Your task to perform on an android device: delete the emails in spam in the gmail app Image 0: 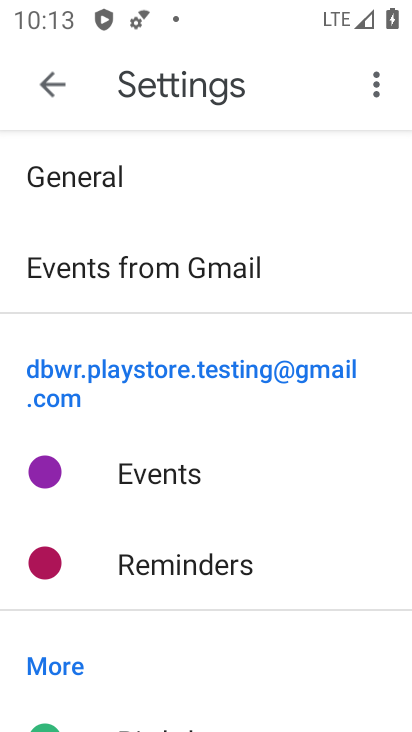
Step 0: press home button
Your task to perform on an android device: delete the emails in spam in the gmail app Image 1: 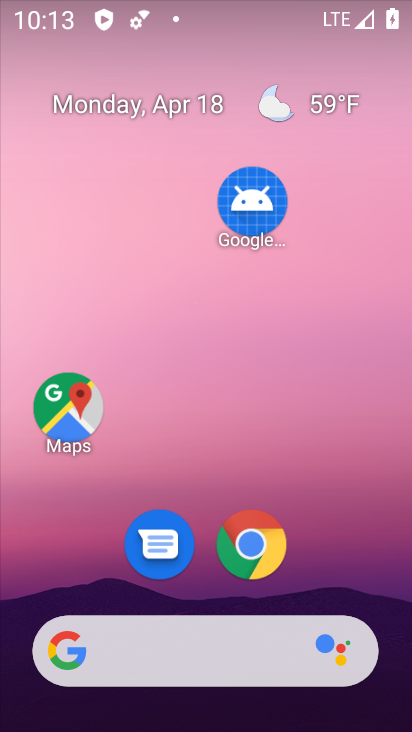
Step 1: drag from (309, 509) to (334, 285)
Your task to perform on an android device: delete the emails in spam in the gmail app Image 2: 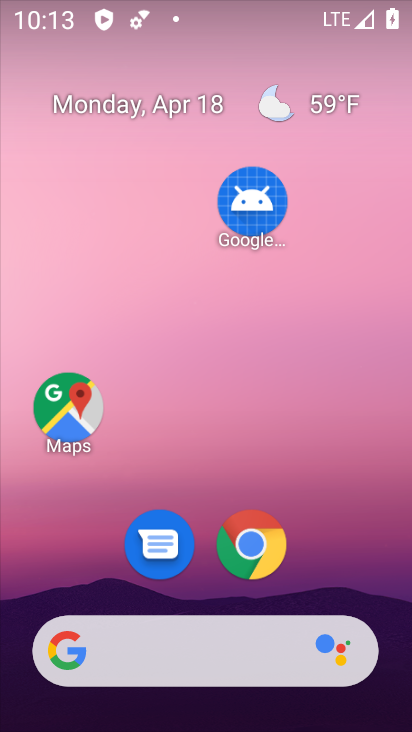
Step 2: drag from (333, 555) to (333, 68)
Your task to perform on an android device: delete the emails in spam in the gmail app Image 3: 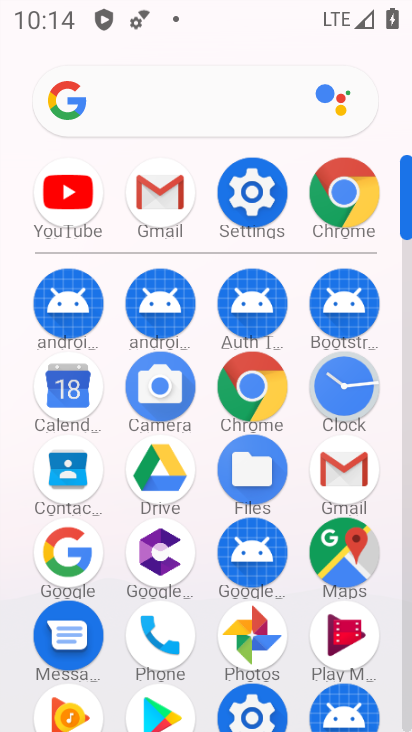
Step 3: click (353, 458)
Your task to perform on an android device: delete the emails in spam in the gmail app Image 4: 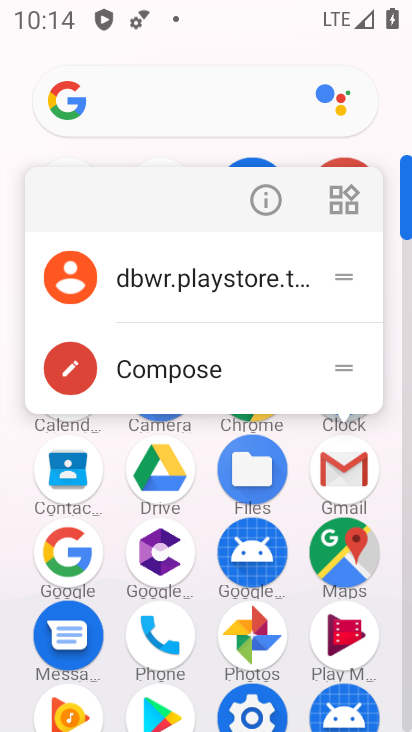
Step 4: click (352, 461)
Your task to perform on an android device: delete the emails in spam in the gmail app Image 5: 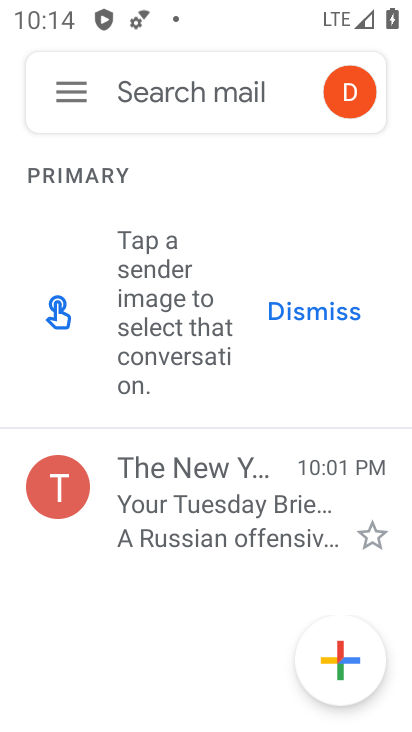
Step 5: click (61, 87)
Your task to perform on an android device: delete the emails in spam in the gmail app Image 6: 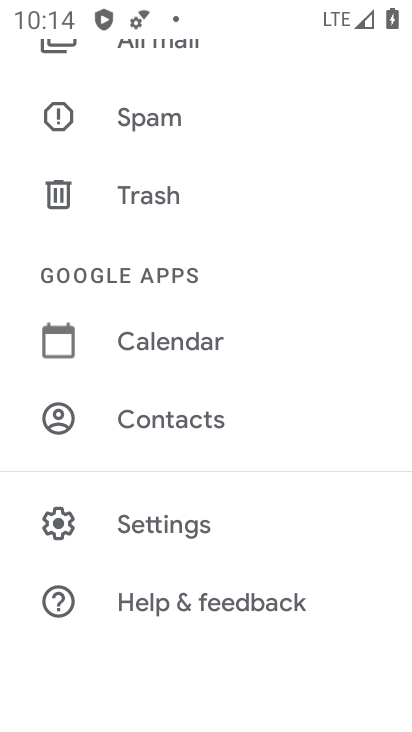
Step 6: drag from (242, 156) to (275, 516)
Your task to perform on an android device: delete the emails in spam in the gmail app Image 7: 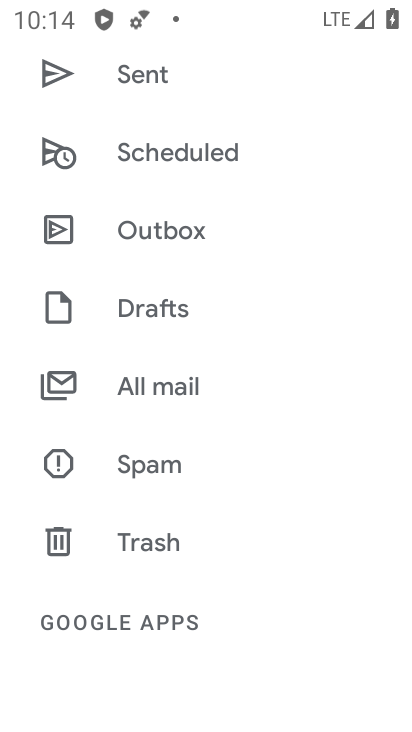
Step 7: click (204, 460)
Your task to perform on an android device: delete the emails in spam in the gmail app Image 8: 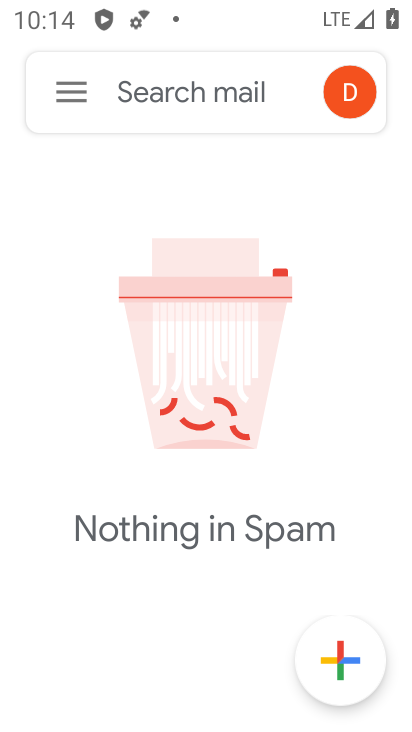
Step 8: task complete